Your task to perform on an android device: Open calendar and show me the fourth week of next month Image 0: 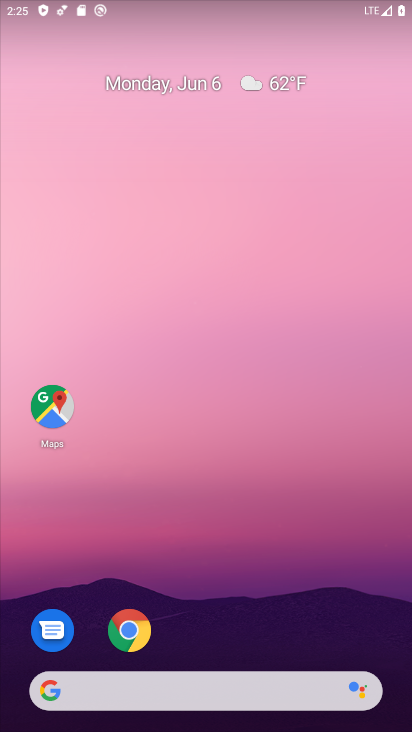
Step 0: click (131, 624)
Your task to perform on an android device: Open calendar and show me the fourth week of next month Image 1: 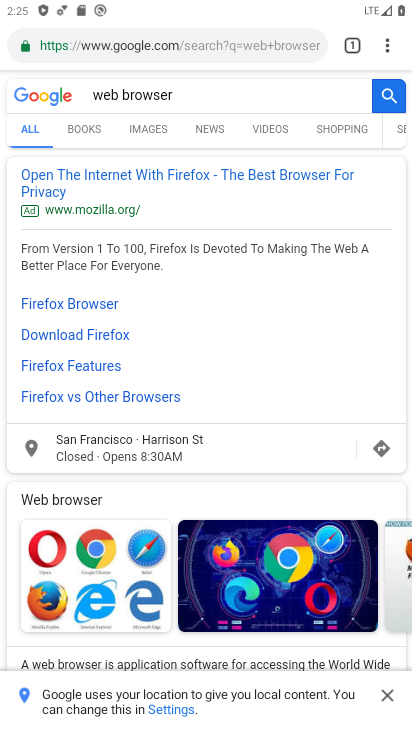
Step 1: press home button
Your task to perform on an android device: Open calendar and show me the fourth week of next month Image 2: 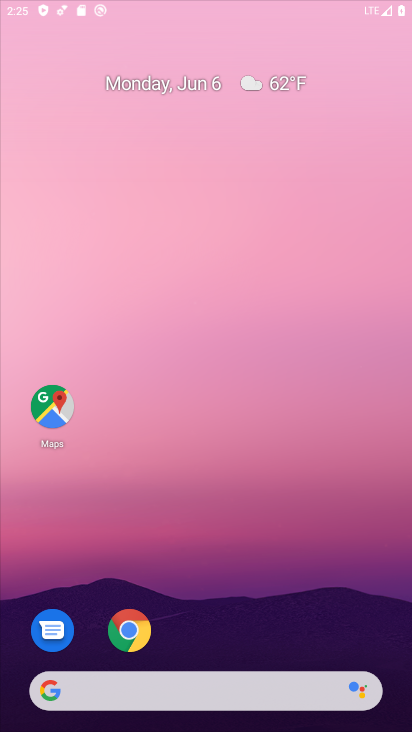
Step 2: drag from (308, 673) to (273, 320)
Your task to perform on an android device: Open calendar and show me the fourth week of next month Image 3: 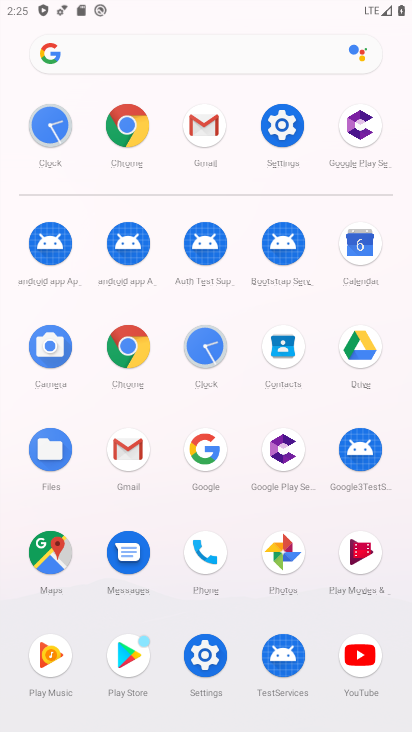
Step 3: click (346, 253)
Your task to perform on an android device: Open calendar and show me the fourth week of next month Image 4: 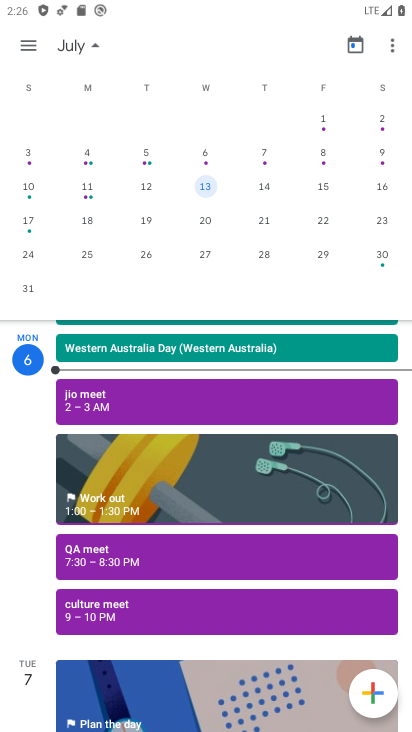
Step 4: press home button
Your task to perform on an android device: Open calendar and show me the fourth week of next month Image 5: 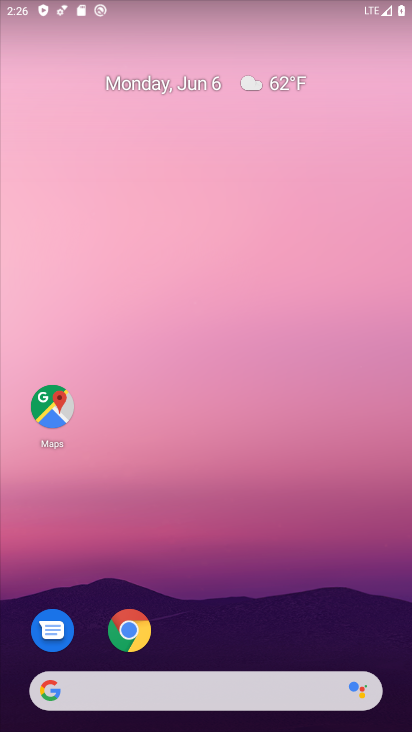
Step 5: drag from (302, 647) to (224, 127)
Your task to perform on an android device: Open calendar and show me the fourth week of next month Image 6: 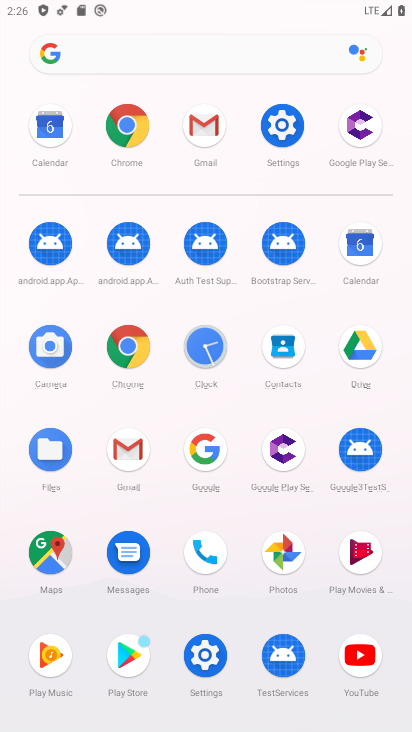
Step 6: click (372, 254)
Your task to perform on an android device: Open calendar and show me the fourth week of next month Image 7: 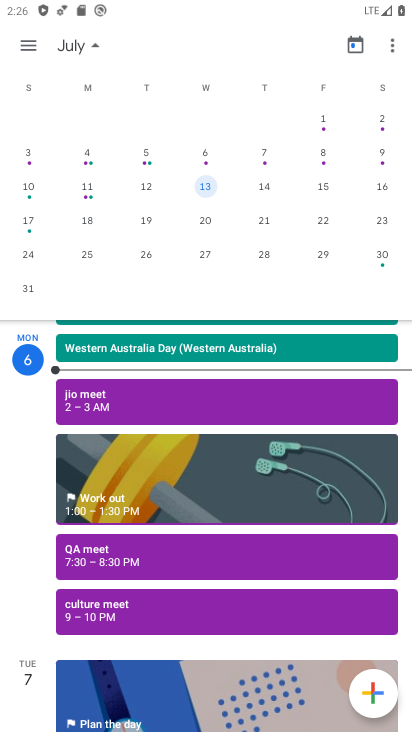
Step 7: click (206, 238)
Your task to perform on an android device: Open calendar and show me the fourth week of next month Image 8: 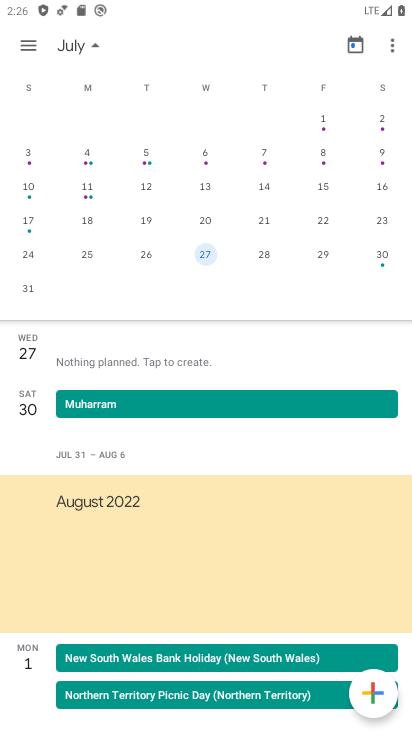
Step 8: click (209, 219)
Your task to perform on an android device: Open calendar and show me the fourth week of next month Image 9: 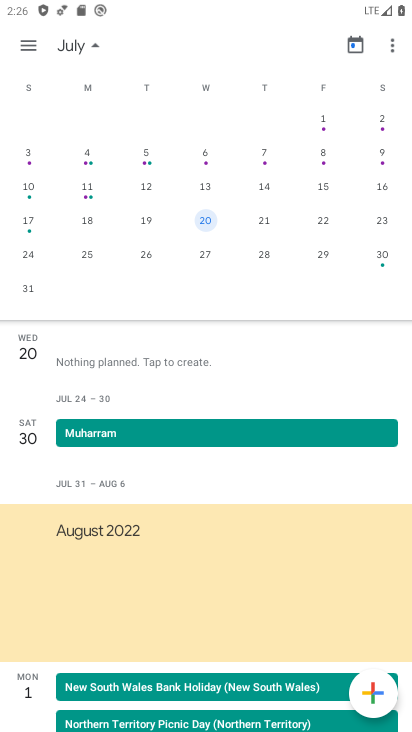
Step 9: task complete